Your task to perform on an android device: What's on my calendar tomorrow? Image 0: 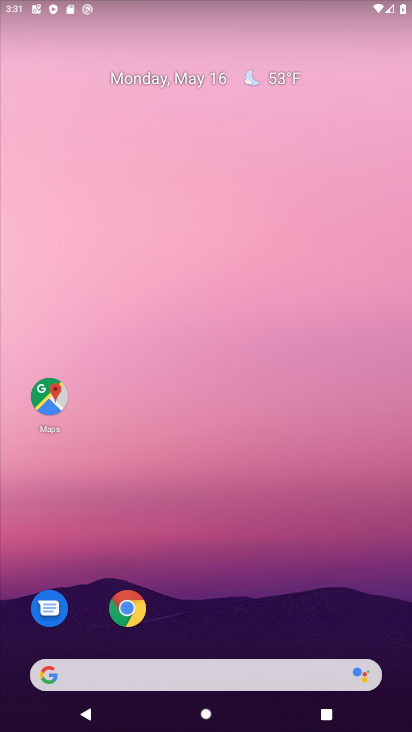
Step 0: drag from (263, 602) to (292, 71)
Your task to perform on an android device: What's on my calendar tomorrow? Image 1: 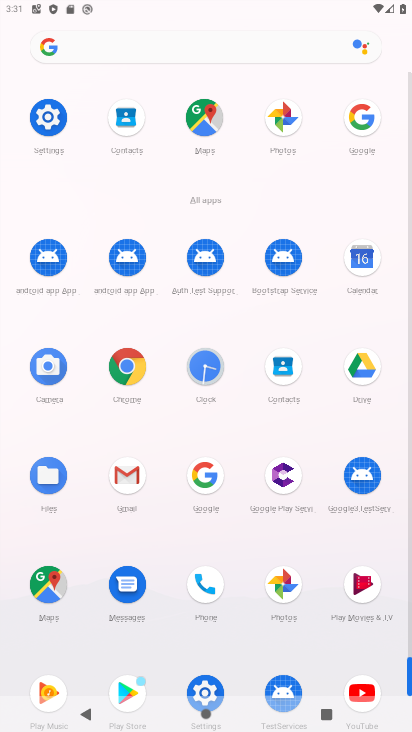
Step 1: click (362, 258)
Your task to perform on an android device: What's on my calendar tomorrow? Image 2: 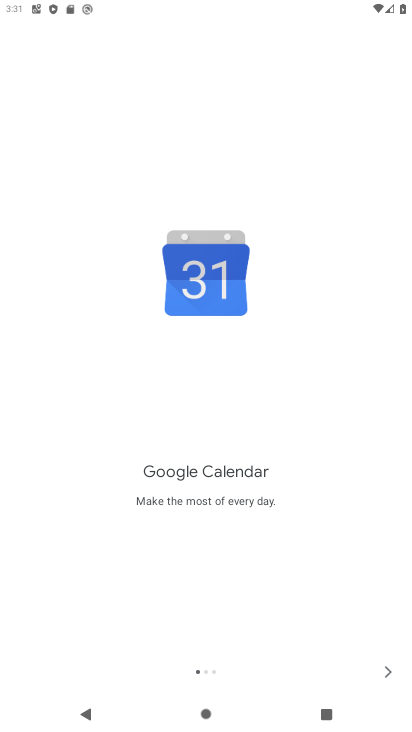
Step 2: click (391, 674)
Your task to perform on an android device: What's on my calendar tomorrow? Image 3: 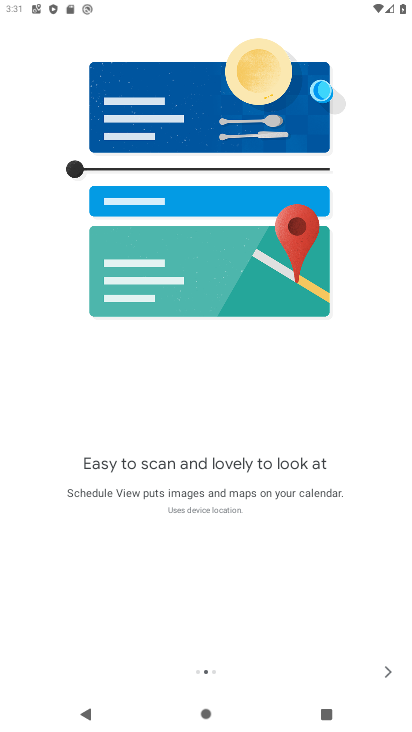
Step 3: click (391, 674)
Your task to perform on an android device: What's on my calendar tomorrow? Image 4: 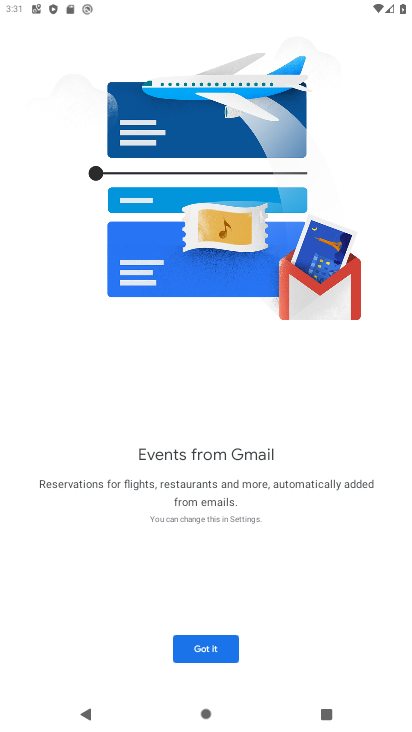
Step 4: click (209, 656)
Your task to perform on an android device: What's on my calendar tomorrow? Image 5: 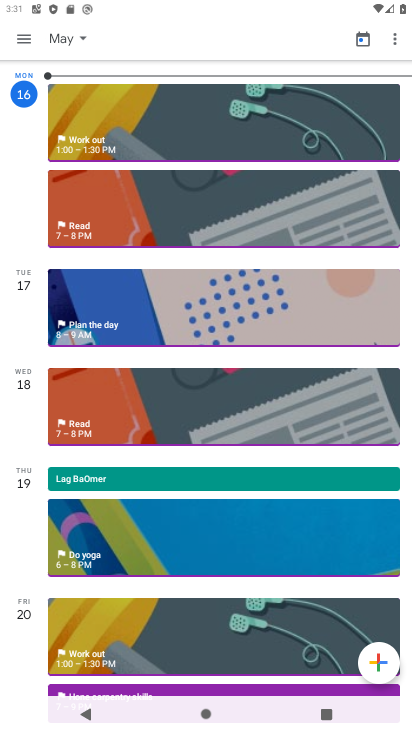
Step 5: click (87, 33)
Your task to perform on an android device: What's on my calendar tomorrow? Image 6: 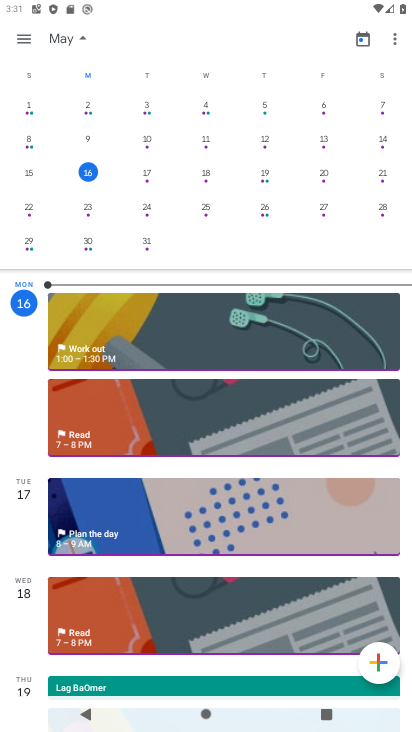
Step 6: click (150, 163)
Your task to perform on an android device: What's on my calendar tomorrow? Image 7: 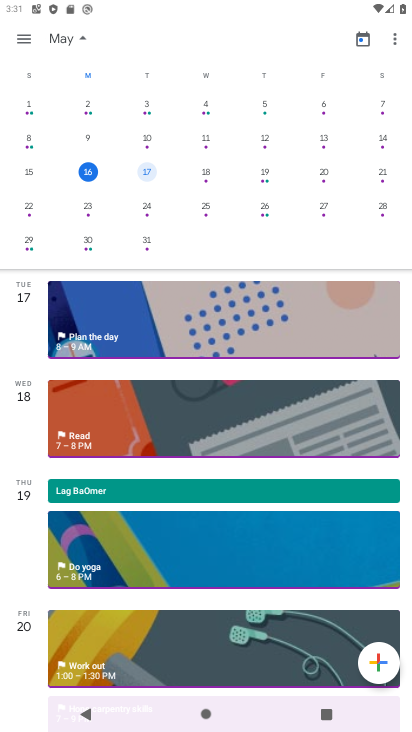
Step 7: click (149, 323)
Your task to perform on an android device: What's on my calendar tomorrow? Image 8: 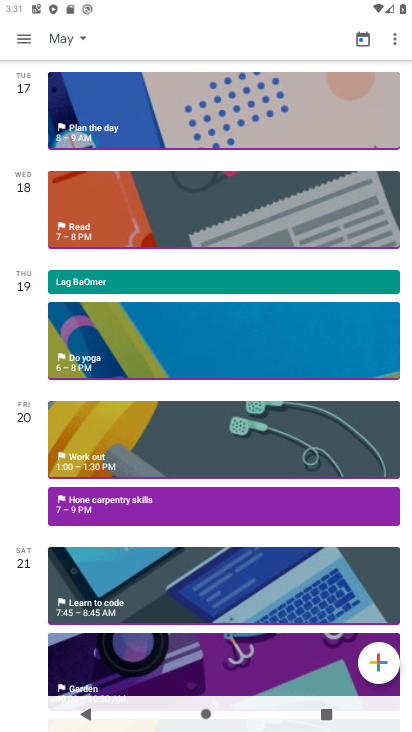
Step 8: click (147, 88)
Your task to perform on an android device: What's on my calendar tomorrow? Image 9: 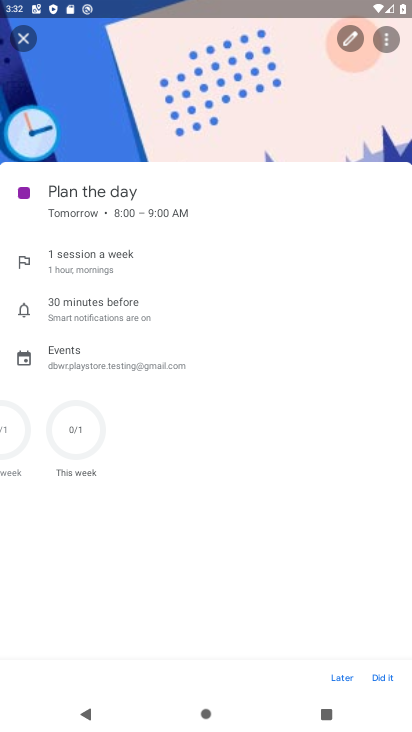
Step 9: task complete